Your task to perform on an android device: clear all cookies in the chrome app Image 0: 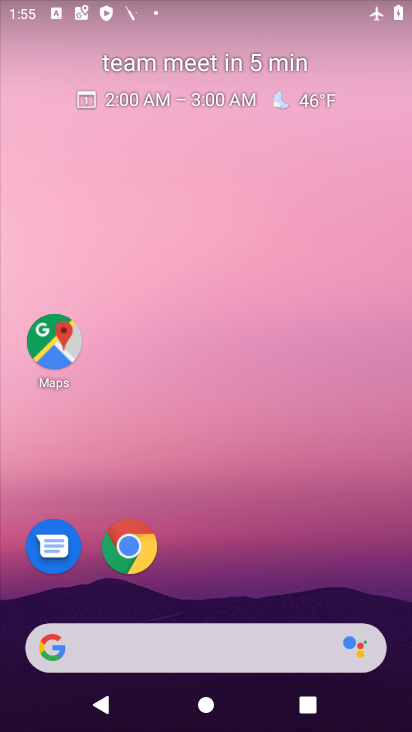
Step 0: click (128, 543)
Your task to perform on an android device: clear all cookies in the chrome app Image 1: 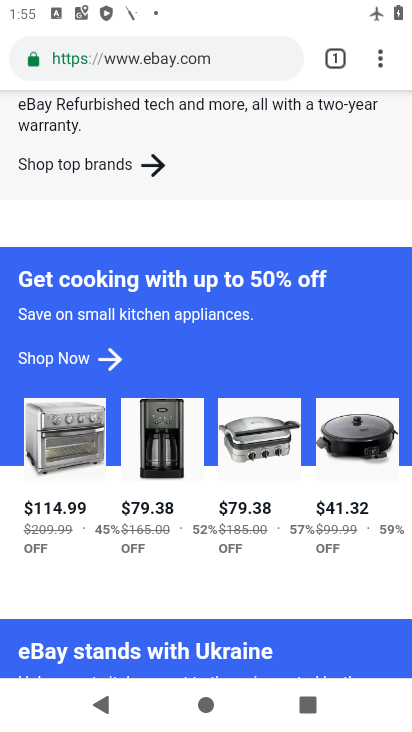
Step 1: click (381, 64)
Your task to perform on an android device: clear all cookies in the chrome app Image 2: 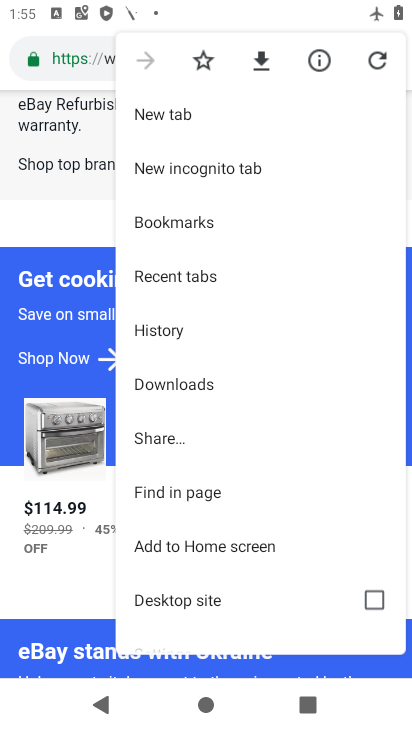
Step 2: click (164, 335)
Your task to perform on an android device: clear all cookies in the chrome app Image 3: 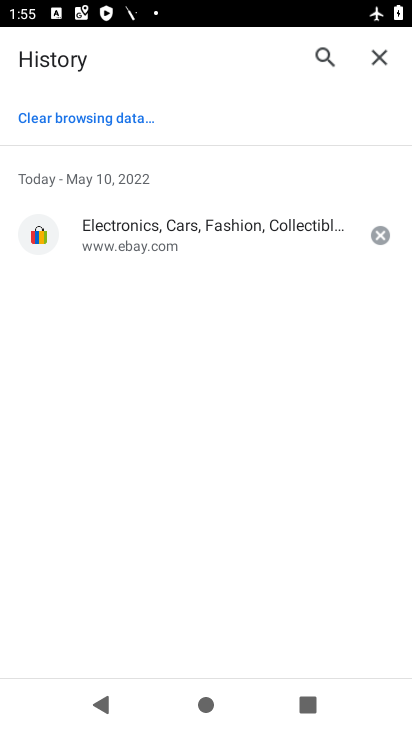
Step 3: click (73, 120)
Your task to perform on an android device: clear all cookies in the chrome app Image 4: 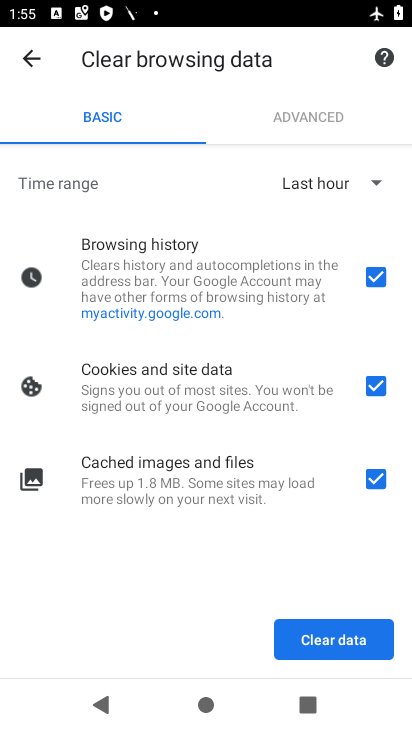
Step 4: click (374, 274)
Your task to perform on an android device: clear all cookies in the chrome app Image 5: 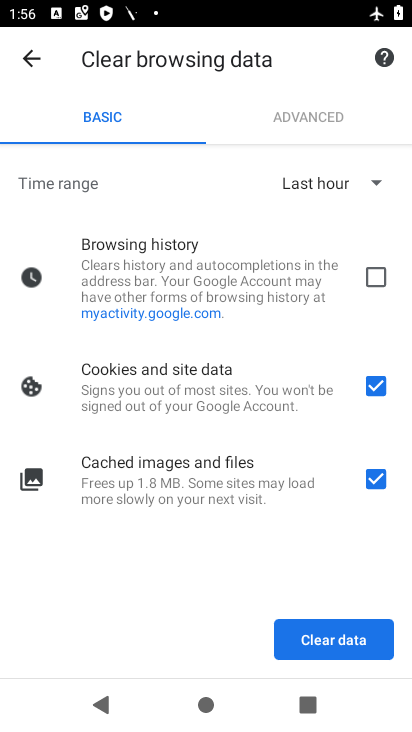
Step 5: click (375, 483)
Your task to perform on an android device: clear all cookies in the chrome app Image 6: 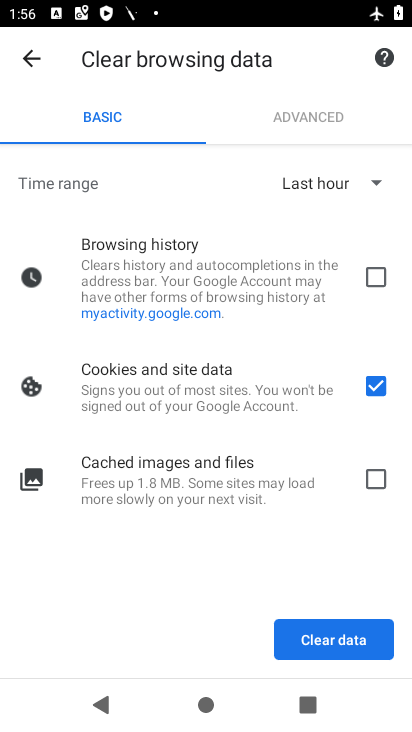
Step 6: click (337, 634)
Your task to perform on an android device: clear all cookies in the chrome app Image 7: 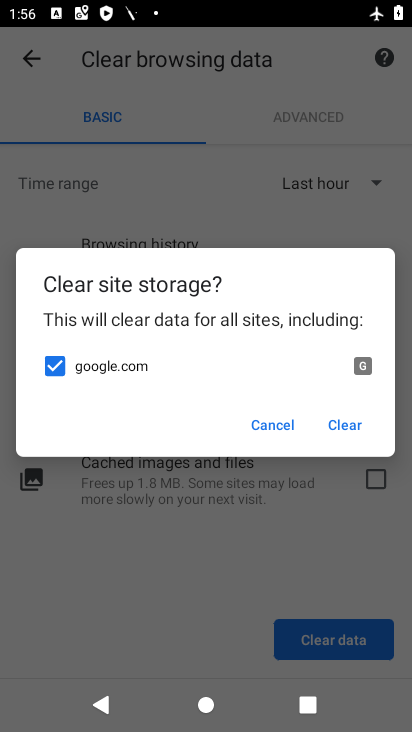
Step 7: click (347, 426)
Your task to perform on an android device: clear all cookies in the chrome app Image 8: 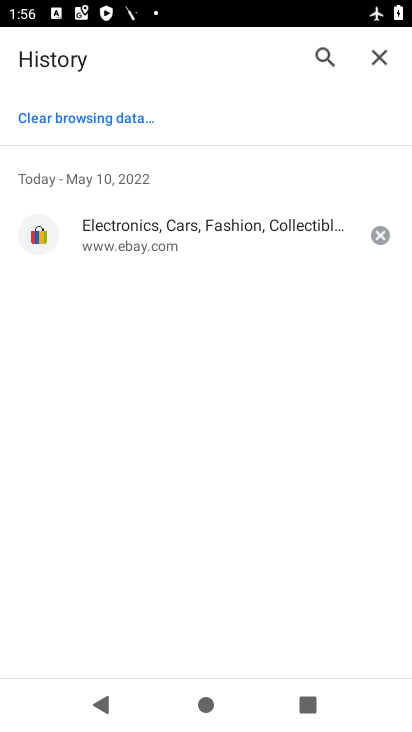
Step 8: task complete